Your task to perform on an android device: see sites visited before in the chrome app Image 0: 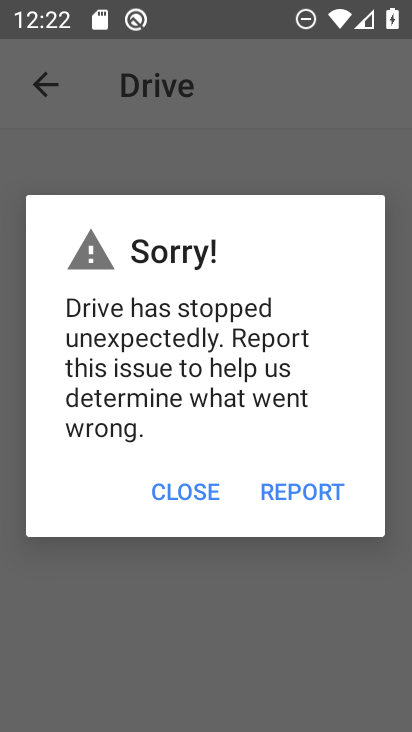
Step 0: press home button
Your task to perform on an android device: see sites visited before in the chrome app Image 1: 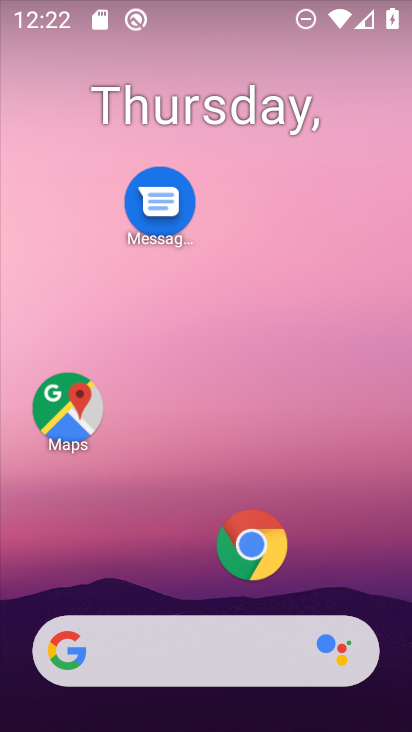
Step 1: click (258, 529)
Your task to perform on an android device: see sites visited before in the chrome app Image 2: 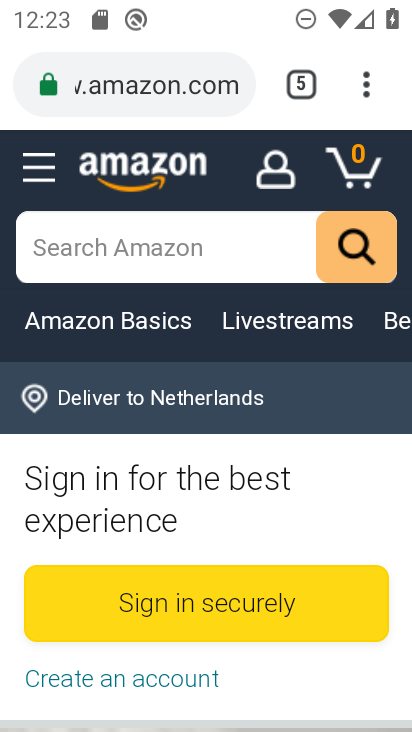
Step 2: click (362, 48)
Your task to perform on an android device: see sites visited before in the chrome app Image 3: 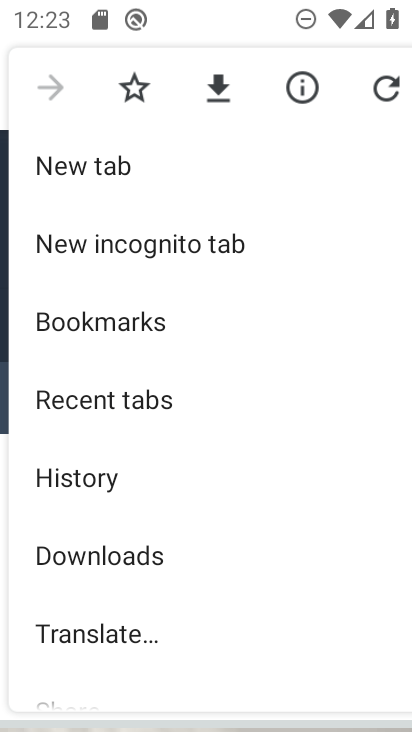
Step 3: drag from (180, 629) to (191, 300)
Your task to perform on an android device: see sites visited before in the chrome app Image 4: 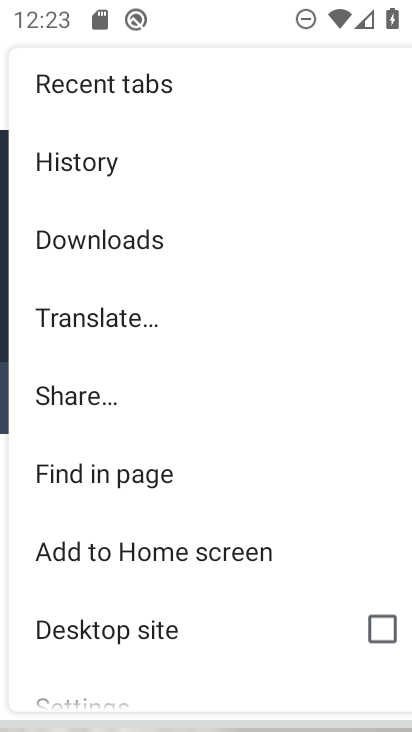
Step 4: click (153, 85)
Your task to perform on an android device: see sites visited before in the chrome app Image 5: 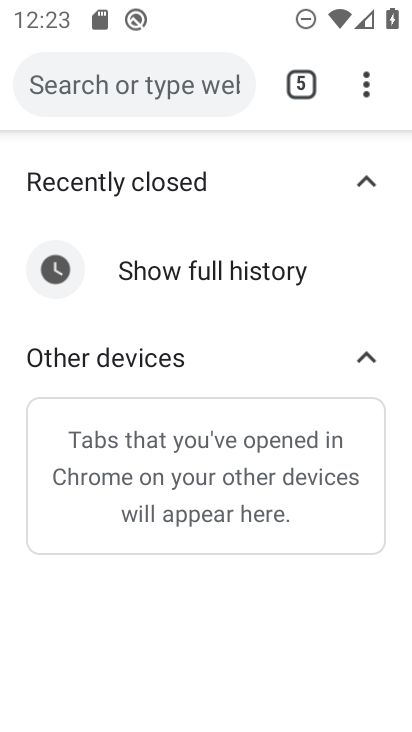
Step 5: task complete